Your task to perform on an android device: toggle improve location accuracy Image 0: 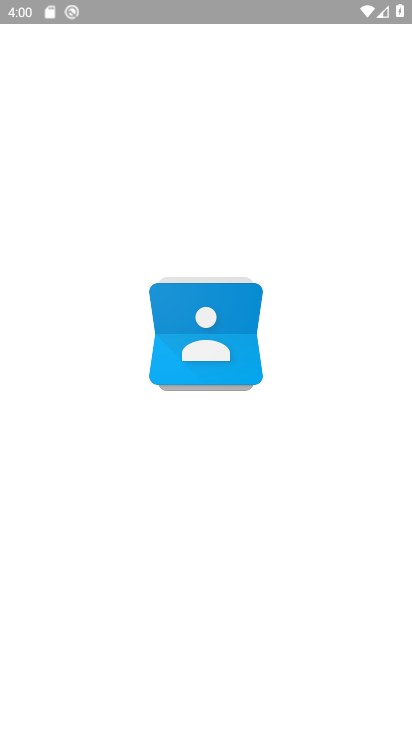
Step 0: drag from (271, 361) to (232, 111)
Your task to perform on an android device: toggle improve location accuracy Image 1: 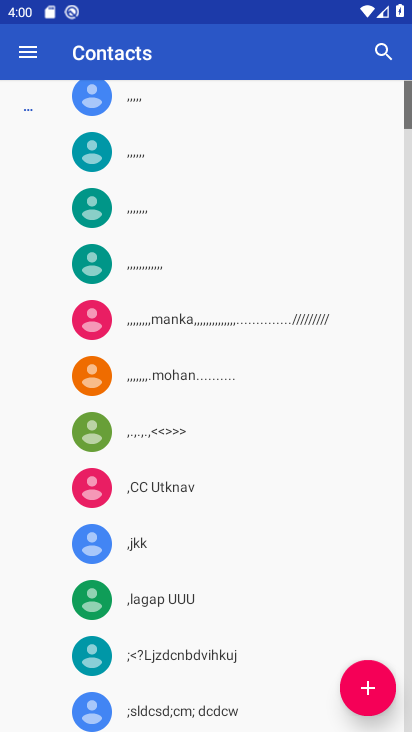
Step 1: press home button
Your task to perform on an android device: toggle improve location accuracy Image 2: 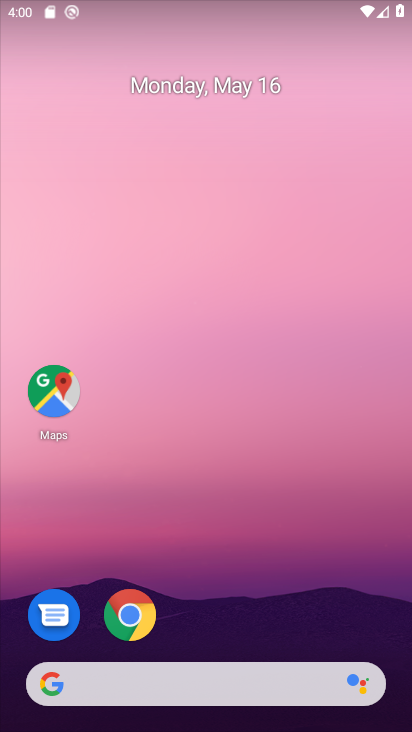
Step 2: drag from (232, 575) to (227, 99)
Your task to perform on an android device: toggle improve location accuracy Image 3: 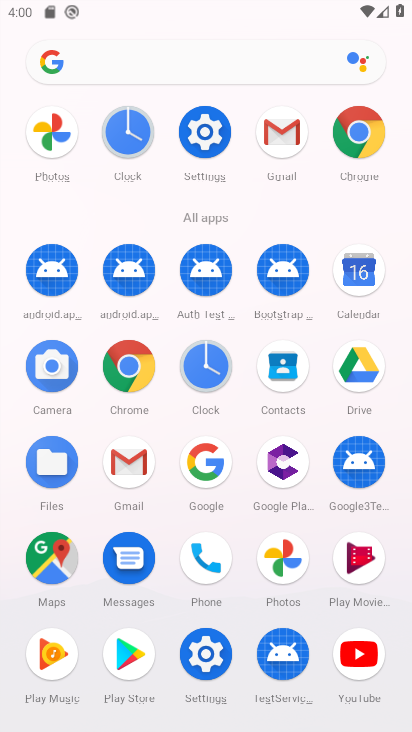
Step 3: click (188, 141)
Your task to perform on an android device: toggle improve location accuracy Image 4: 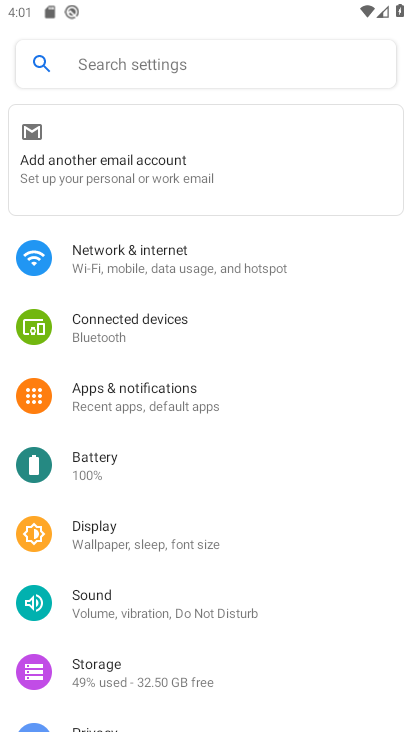
Step 4: drag from (96, 680) to (106, 442)
Your task to perform on an android device: toggle improve location accuracy Image 5: 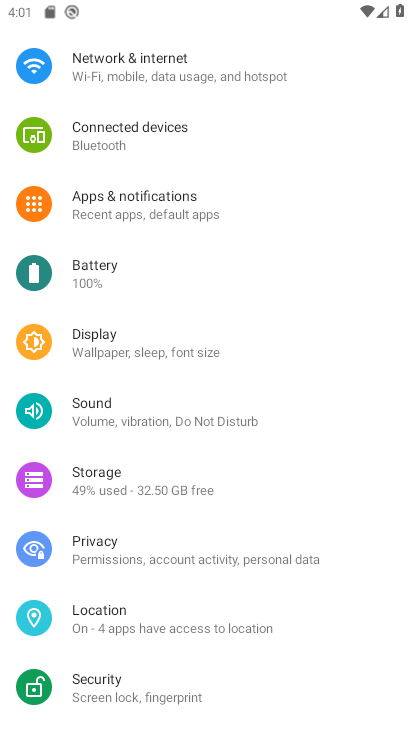
Step 5: click (107, 636)
Your task to perform on an android device: toggle improve location accuracy Image 6: 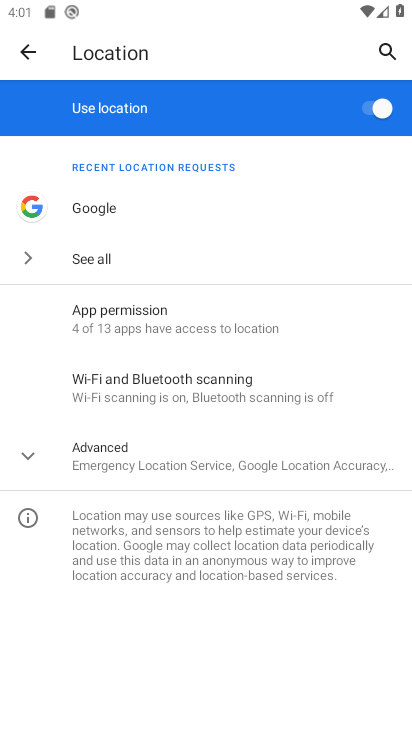
Step 6: click (120, 469)
Your task to perform on an android device: toggle improve location accuracy Image 7: 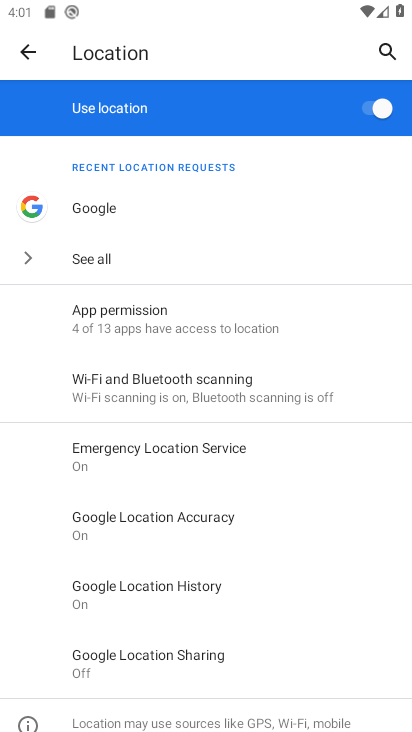
Step 7: click (162, 529)
Your task to perform on an android device: toggle improve location accuracy Image 8: 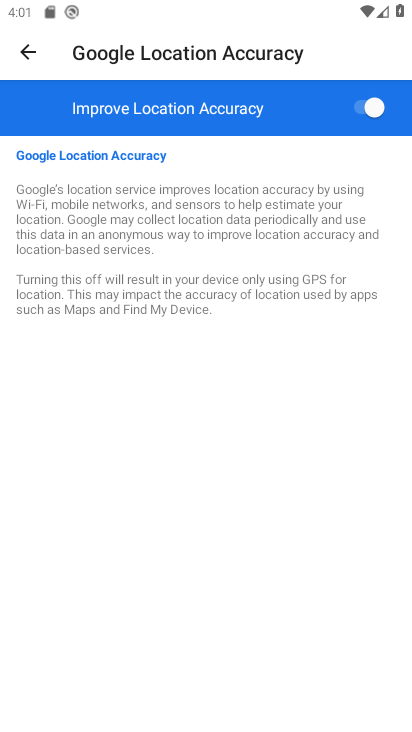
Step 8: click (359, 102)
Your task to perform on an android device: toggle improve location accuracy Image 9: 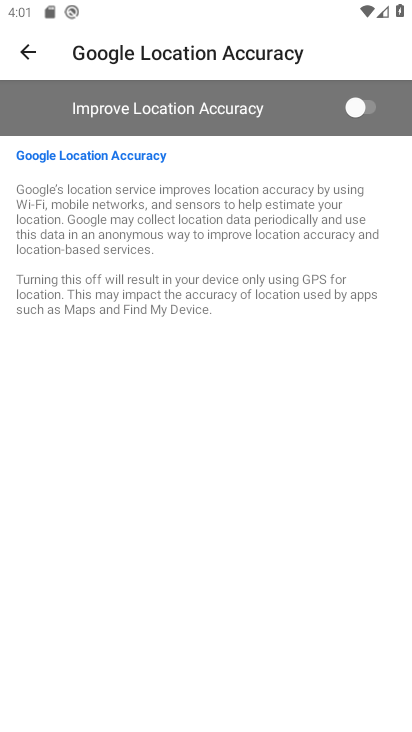
Step 9: task complete